Your task to perform on an android device: open chrome privacy settings Image 0: 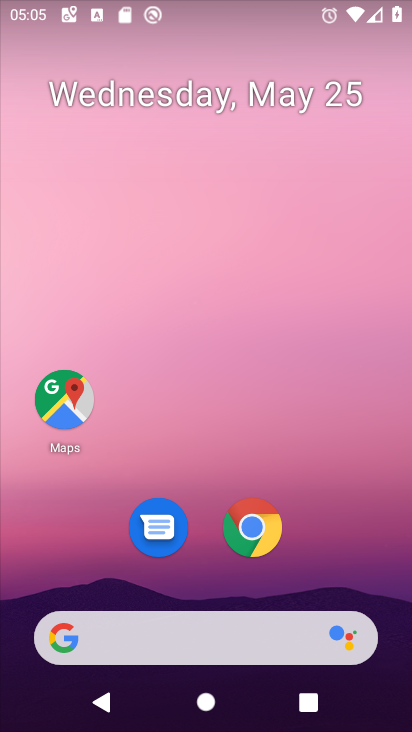
Step 0: drag from (214, 487) to (223, 0)
Your task to perform on an android device: open chrome privacy settings Image 1: 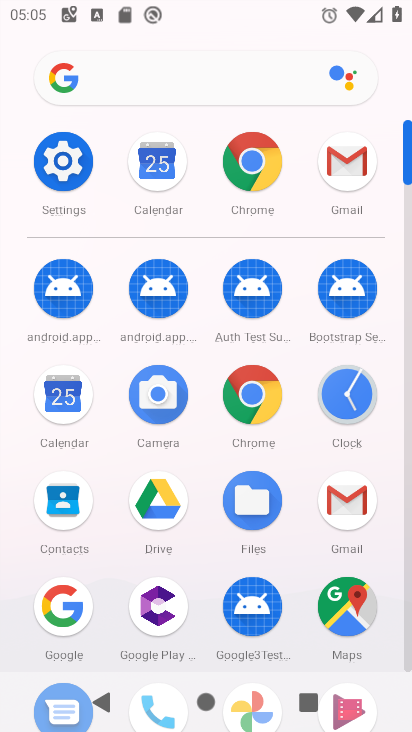
Step 1: click (268, 169)
Your task to perform on an android device: open chrome privacy settings Image 2: 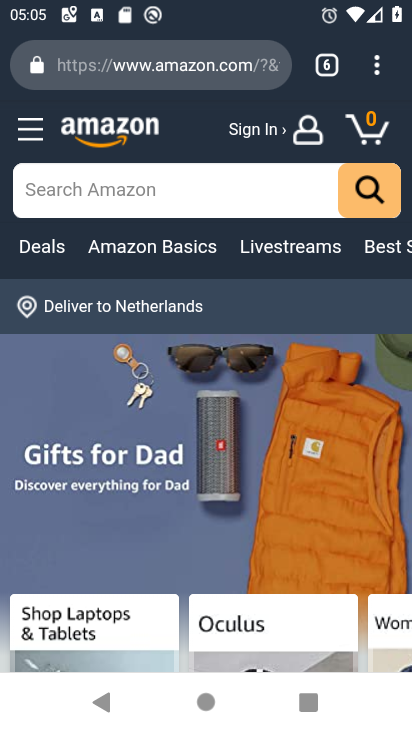
Step 2: click (384, 67)
Your task to perform on an android device: open chrome privacy settings Image 3: 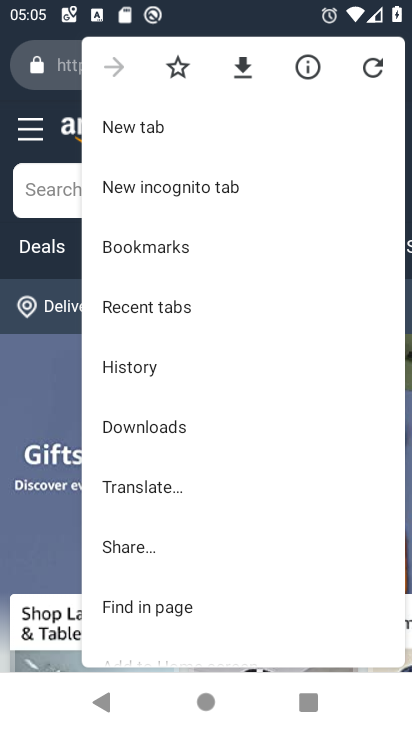
Step 3: drag from (270, 477) to (270, 183)
Your task to perform on an android device: open chrome privacy settings Image 4: 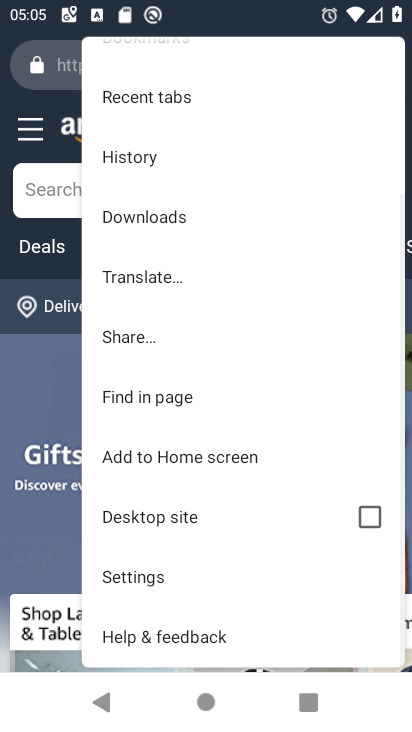
Step 4: click (171, 577)
Your task to perform on an android device: open chrome privacy settings Image 5: 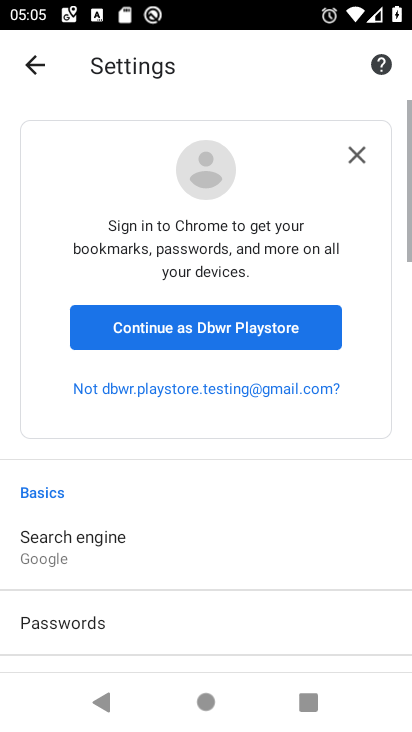
Step 5: drag from (233, 543) to (264, 185)
Your task to perform on an android device: open chrome privacy settings Image 6: 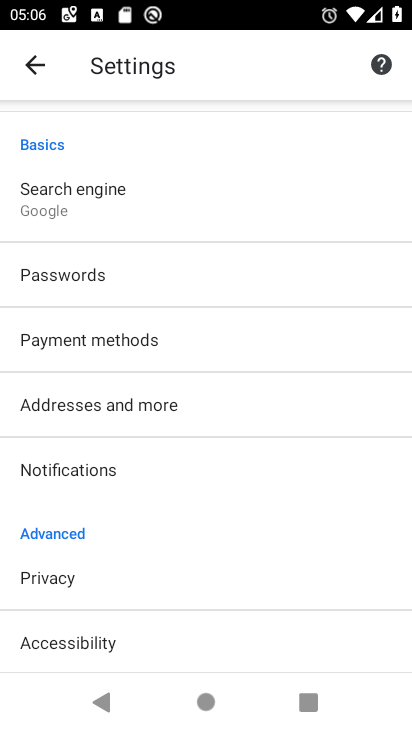
Step 6: click (73, 569)
Your task to perform on an android device: open chrome privacy settings Image 7: 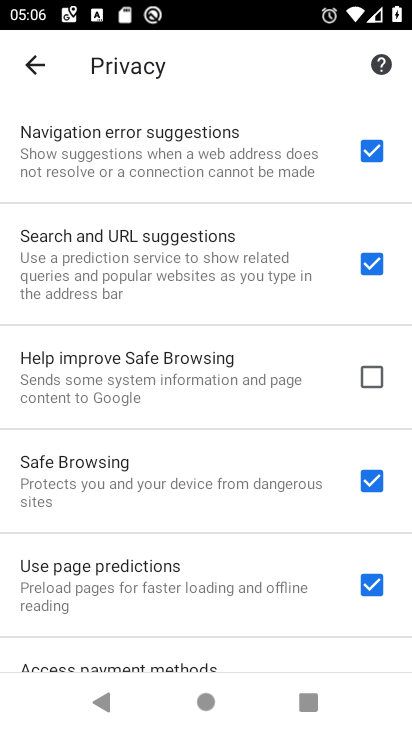
Step 7: task complete